Your task to perform on an android device: Search for pizza restaurants on Maps Image 0: 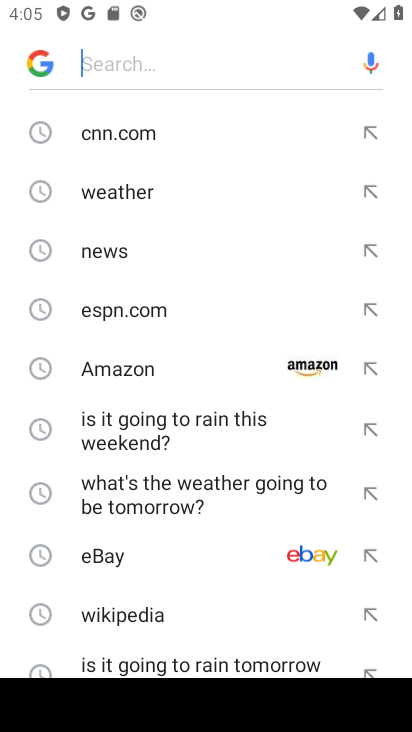
Step 0: click (119, 64)
Your task to perform on an android device: Search for pizza restaurants on Maps Image 1: 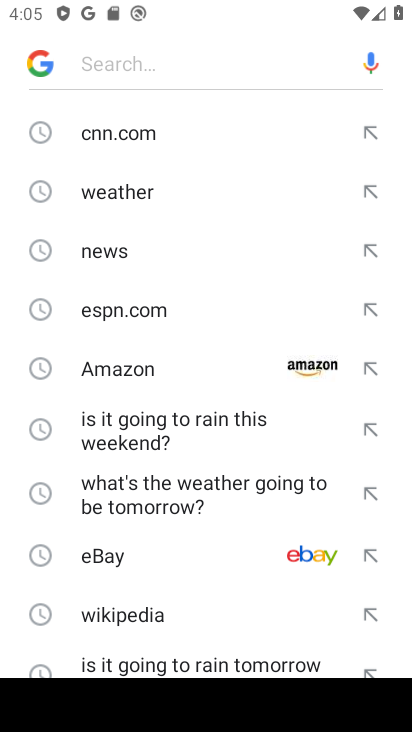
Step 1: type "pizza restaurants"
Your task to perform on an android device: Search for pizza restaurants on Maps Image 2: 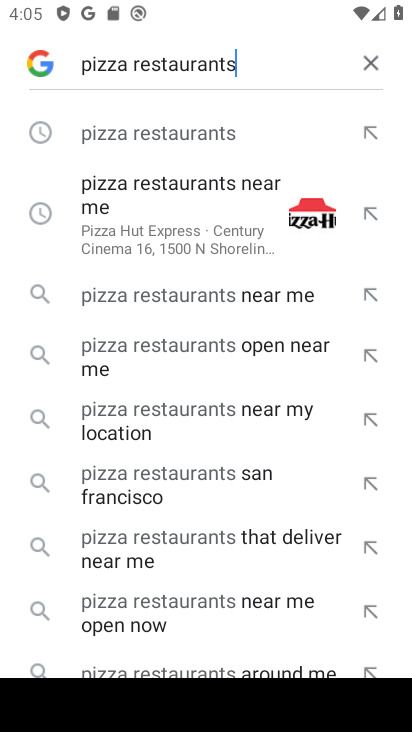
Step 2: click (183, 128)
Your task to perform on an android device: Search for pizza restaurants on Maps Image 3: 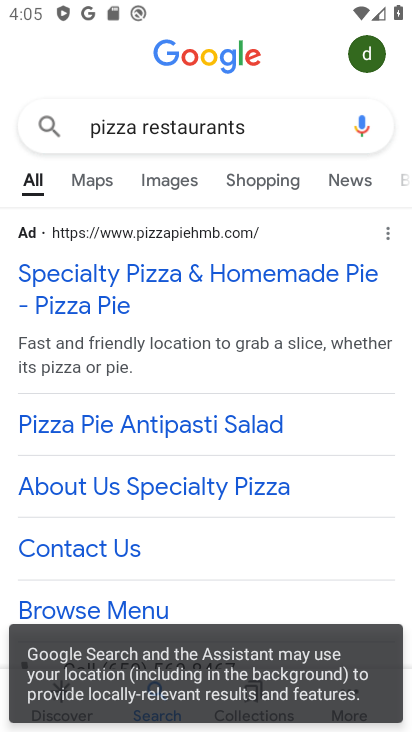
Step 3: task complete